Your task to perform on an android device: turn off location Image 0: 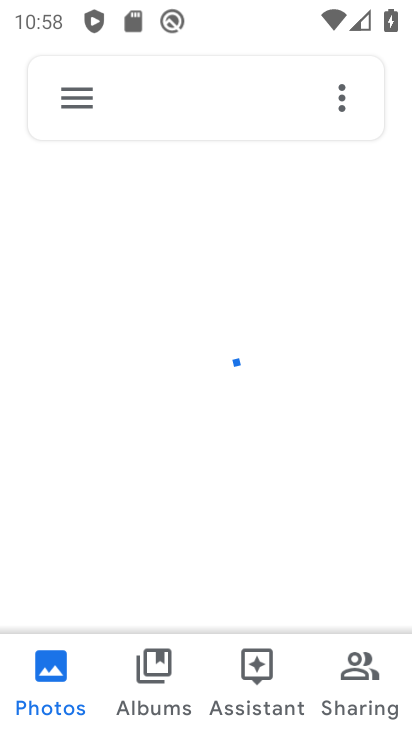
Step 0: press back button
Your task to perform on an android device: turn off location Image 1: 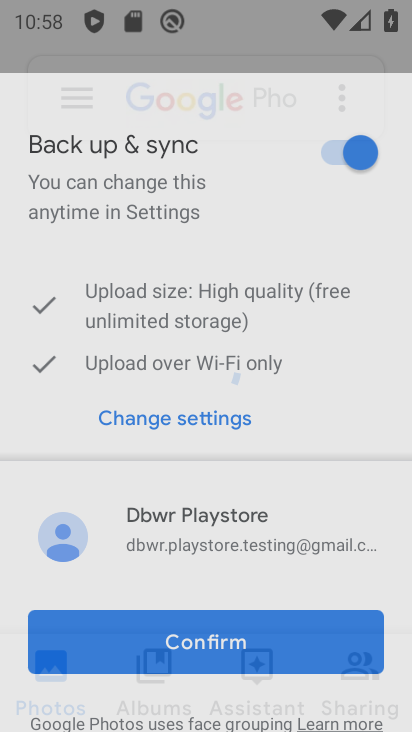
Step 1: press back button
Your task to perform on an android device: turn off location Image 2: 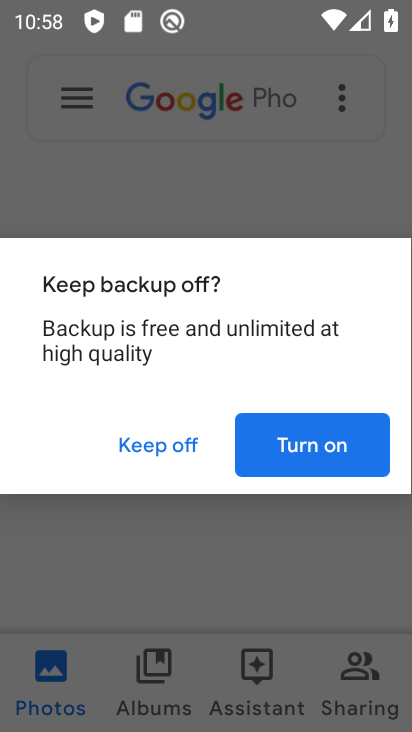
Step 2: press home button
Your task to perform on an android device: turn off location Image 3: 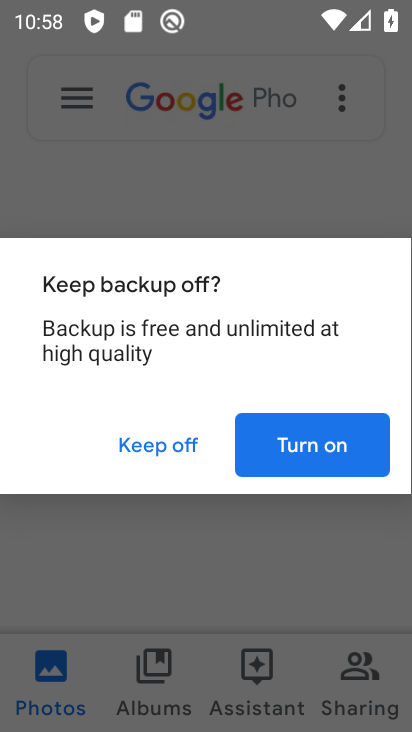
Step 3: click (165, 427)
Your task to perform on an android device: turn off location Image 4: 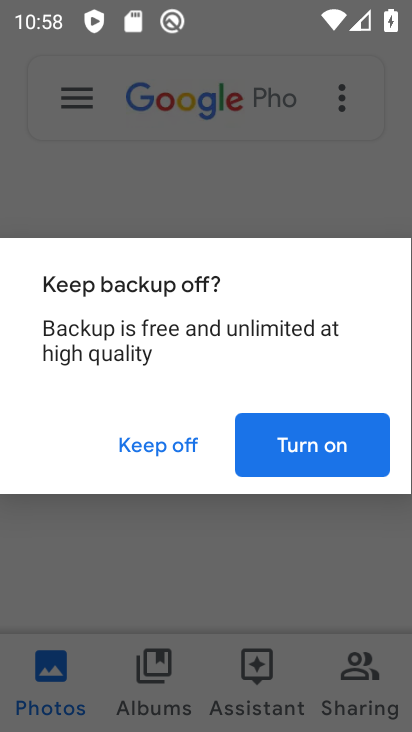
Step 4: click (163, 434)
Your task to perform on an android device: turn off location Image 5: 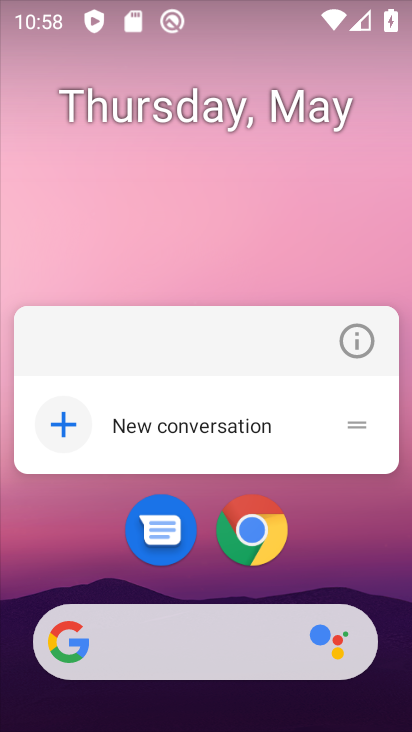
Step 5: press back button
Your task to perform on an android device: turn off location Image 6: 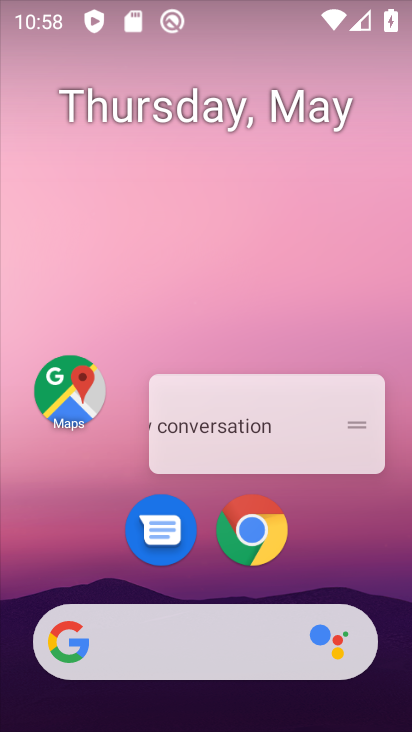
Step 6: press back button
Your task to perform on an android device: turn off location Image 7: 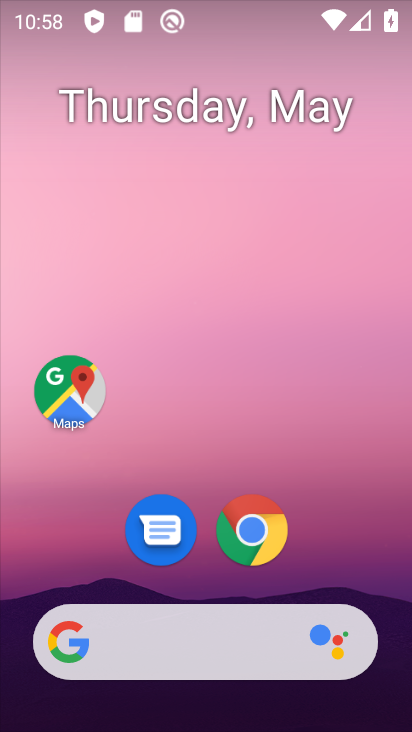
Step 7: drag from (220, 699) to (166, 148)
Your task to perform on an android device: turn off location Image 8: 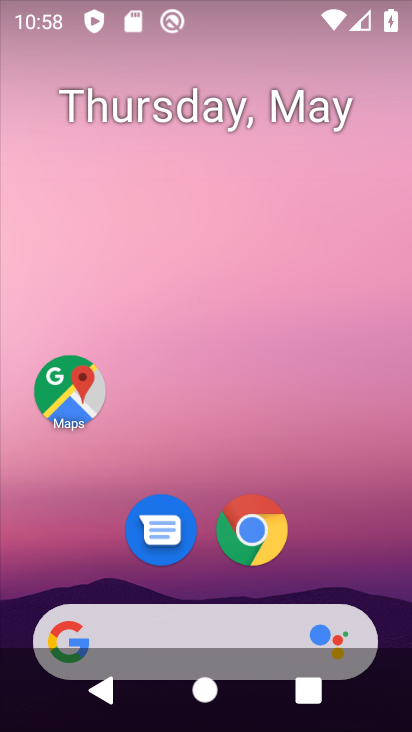
Step 8: drag from (344, 583) to (171, 6)
Your task to perform on an android device: turn off location Image 9: 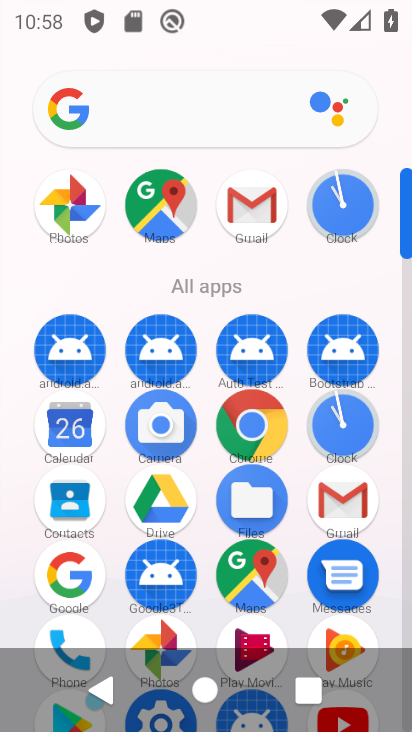
Step 9: click (183, 32)
Your task to perform on an android device: turn off location Image 10: 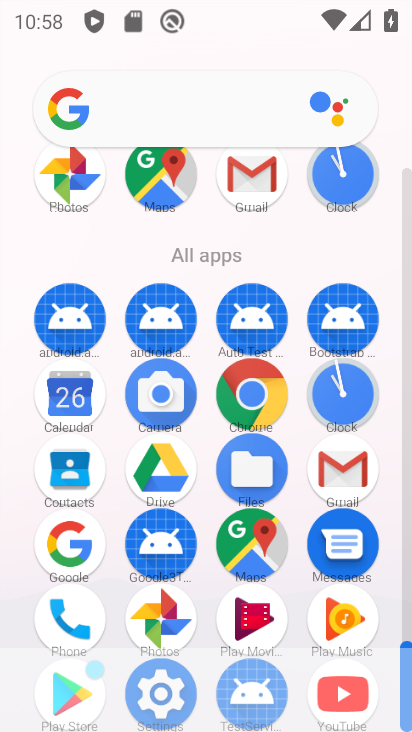
Step 10: drag from (214, 353) to (216, 224)
Your task to perform on an android device: turn off location Image 11: 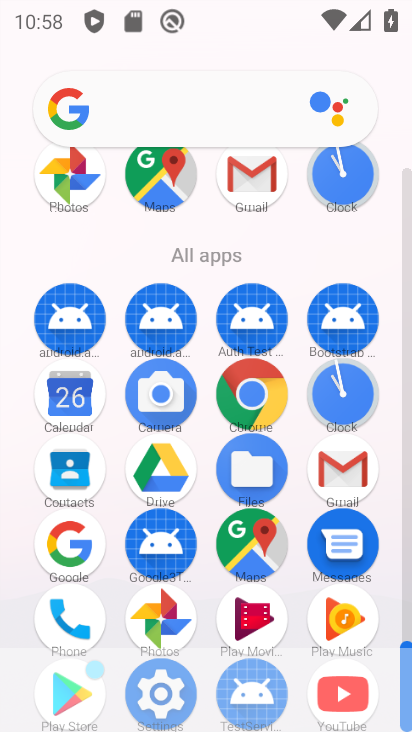
Step 11: drag from (194, 577) to (201, 286)
Your task to perform on an android device: turn off location Image 12: 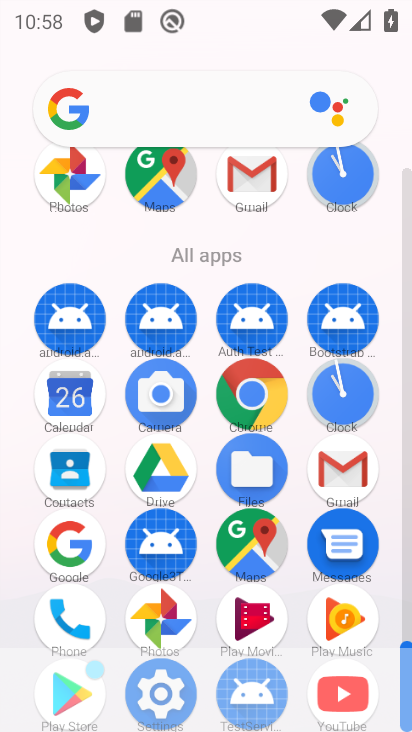
Step 12: drag from (188, 555) to (144, 250)
Your task to perform on an android device: turn off location Image 13: 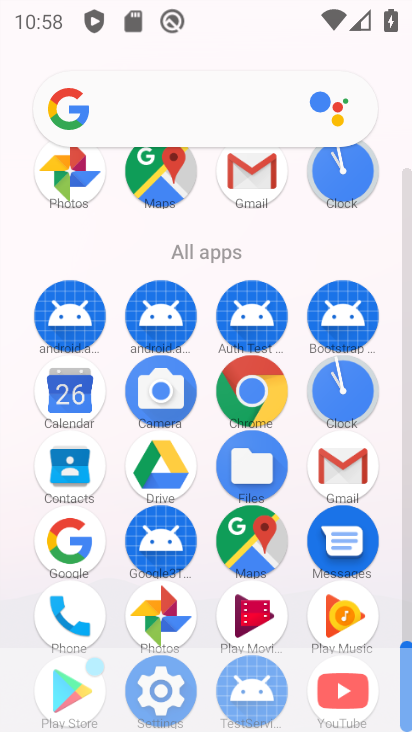
Step 13: drag from (182, 560) to (160, 254)
Your task to perform on an android device: turn off location Image 14: 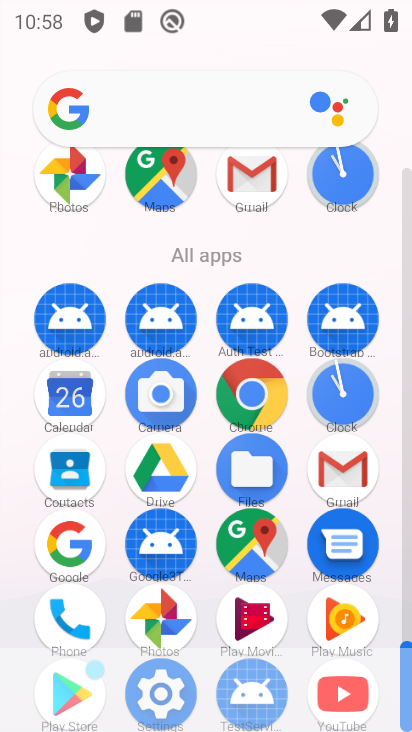
Step 14: drag from (226, 442) to (201, 209)
Your task to perform on an android device: turn off location Image 15: 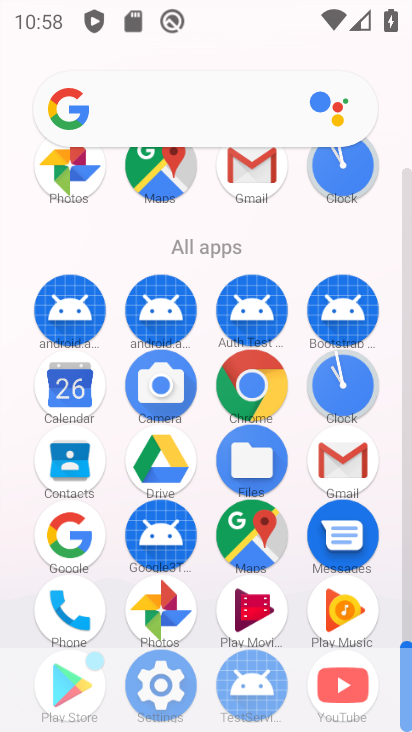
Step 15: drag from (212, 494) to (203, 79)
Your task to perform on an android device: turn off location Image 16: 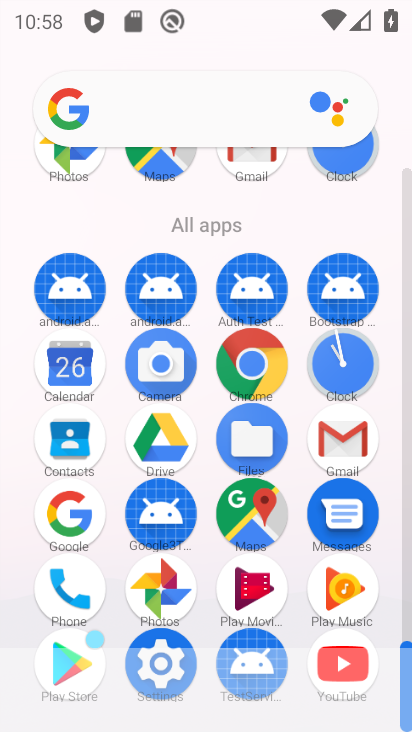
Step 16: drag from (305, 427) to (327, 270)
Your task to perform on an android device: turn off location Image 17: 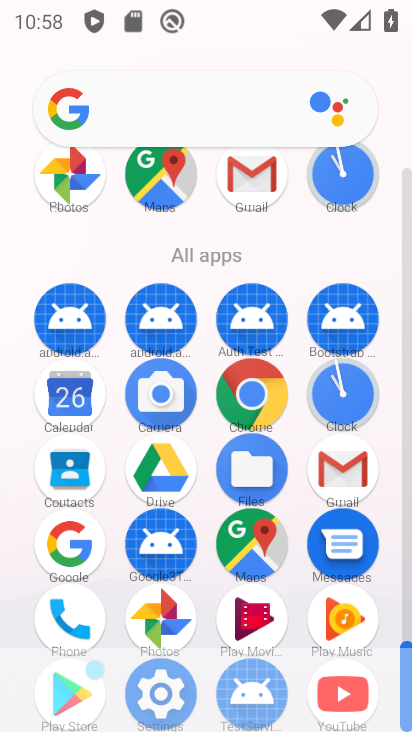
Step 17: drag from (334, 561) to (290, 283)
Your task to perform on an android device: turn off location Image 18: 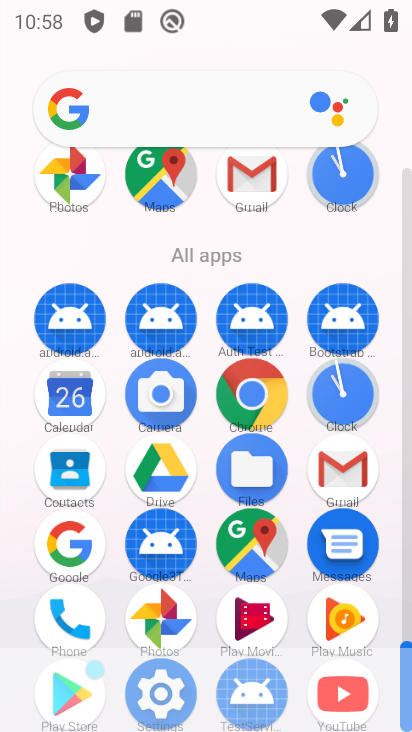
Step 18: drag from (196, 237) to (200, 502)
Your task to perform on an android device: turn off location Image 19: 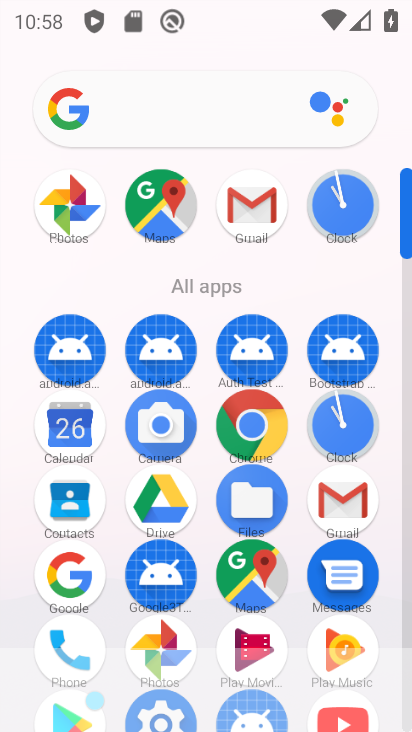
Step 19: drag from (199, 472) to (210, 16)
Your task to perform on an android device: turn off location Image 20: 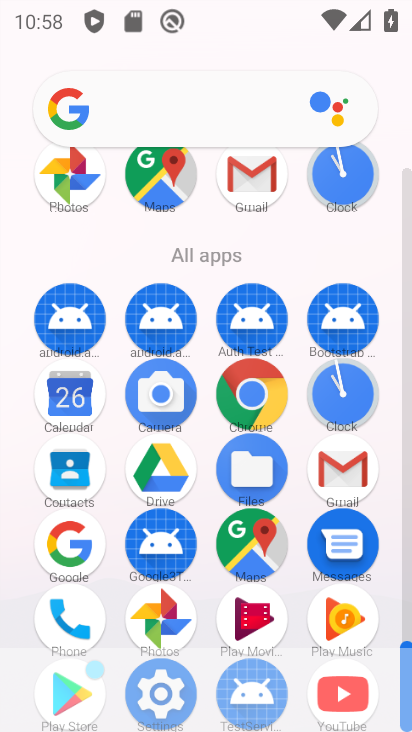
Step 20: drag from (196, 355) to (162, 466)
Your task to perform on an android device: turn off location Image 21: 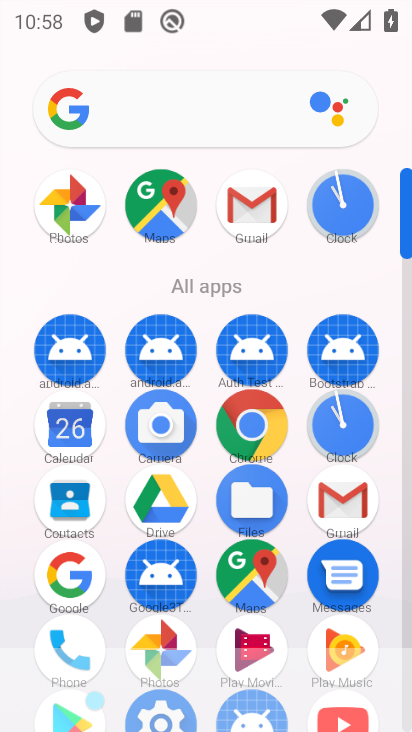
Step 21: drag from (188, 468) to (188, 354)
Your task to perform on an android device: turn off location Image 22: 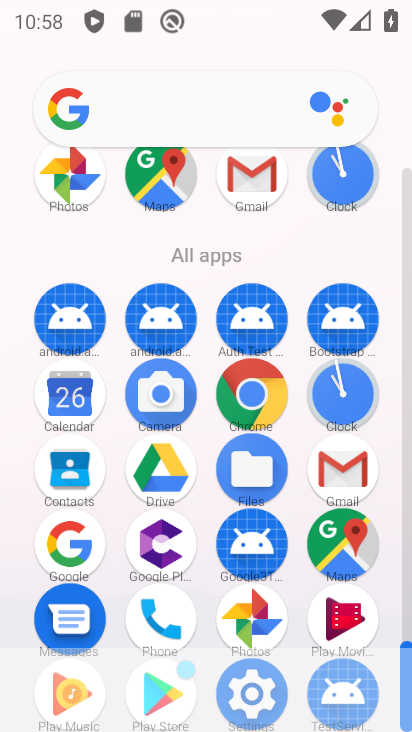
Step 22: click (289, 225)
Your task to perform on an android device: turn off location Image 23: 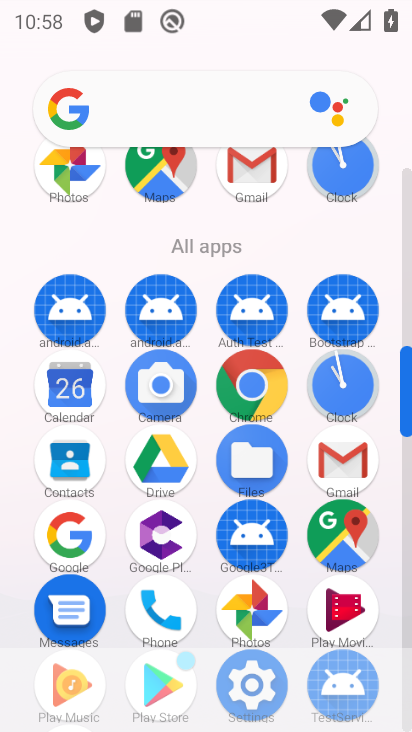
Step 23: drag from (250, 375) to (271, 44)
Your task to perform on an android device: turn off location Image 24: 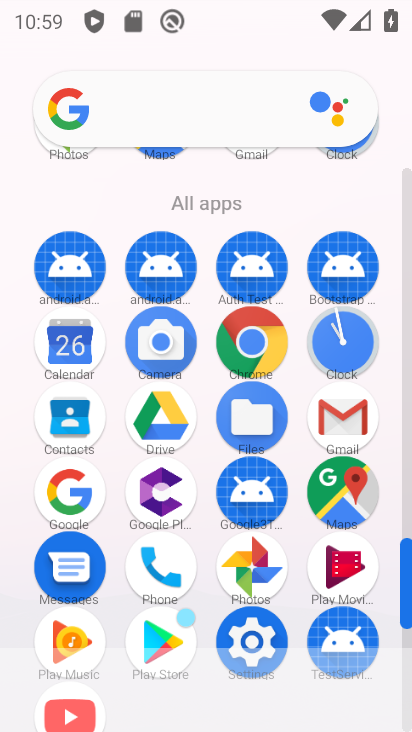
Step 24: drag from (288, 445) to (252, 125)
Your task to perform on an android device: turn off location Image 25: 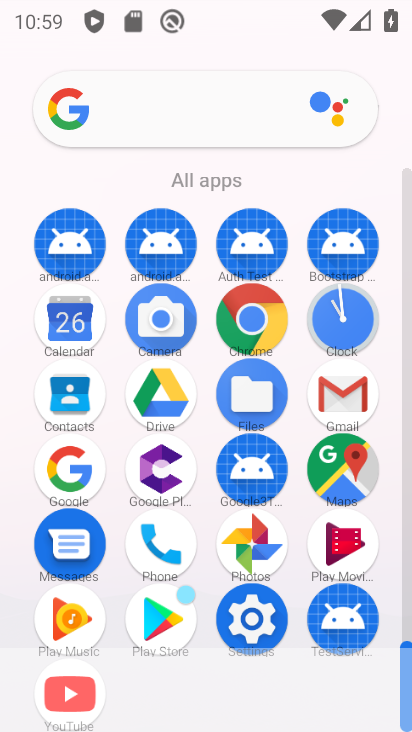
Step 25: drag from (295, 378) to (295, 181)
Your task to perform on an android device: turn off location Image 26: 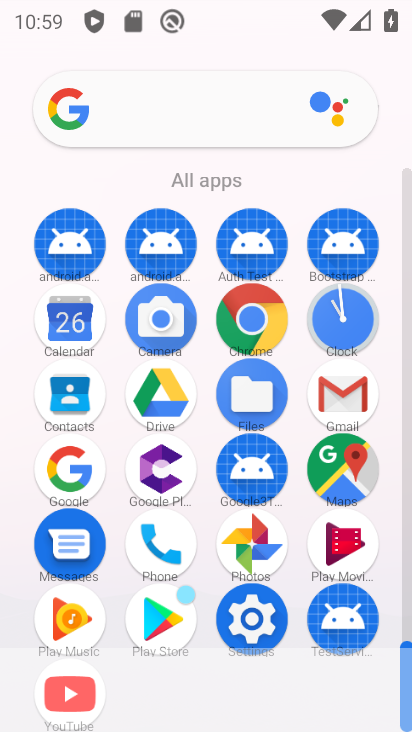
Step 26: click (225, 90)
Your task to perform on an android device: turn off location Image 27: 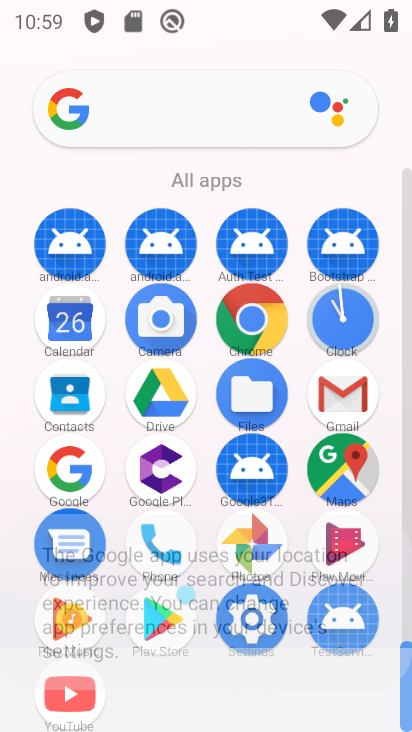
Step 27: click (237, 634)
Your task to perform on an android device: turn off location Image 28: 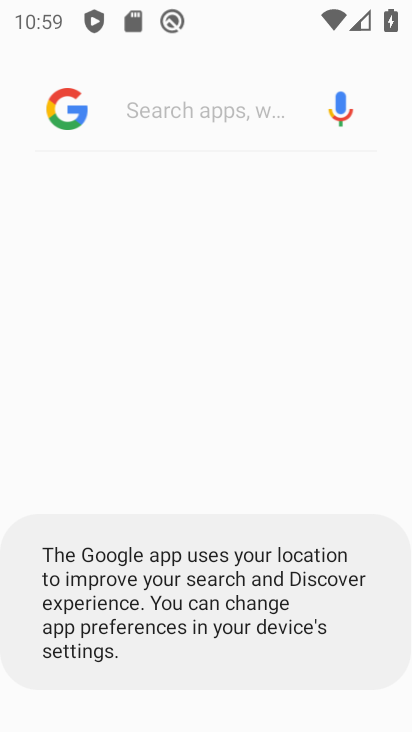
Step 28: click (251, 616)
Your task to perform on an android device: turn off location Image 29: 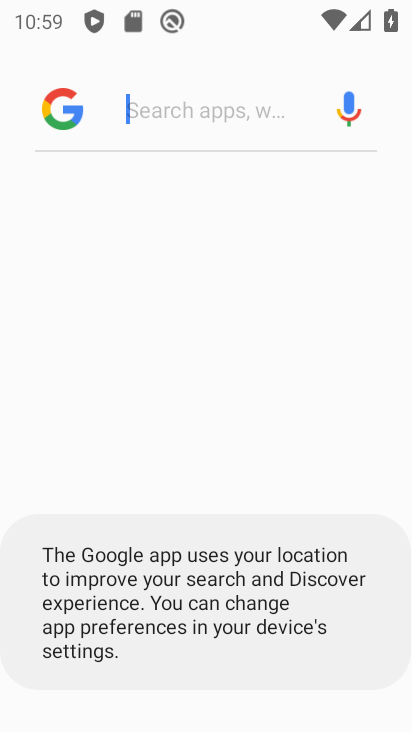
Step 29: click (252, 616)
Your task to perform on an android device: turn off location Image 30: 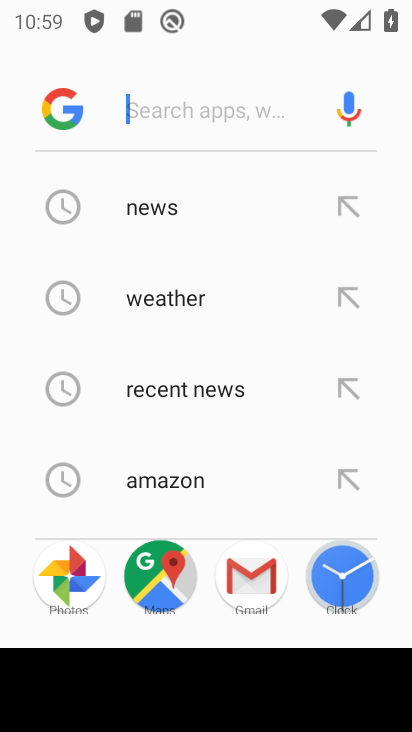
Step 30: click (256, 604)
Your task to perform on an android device: turn off location Image 31: 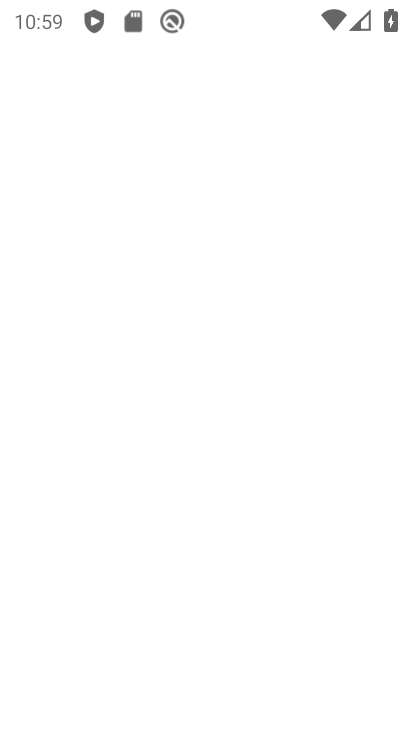
Step 31: press back button
Your task to perform on an android device: turn off location Image 32: 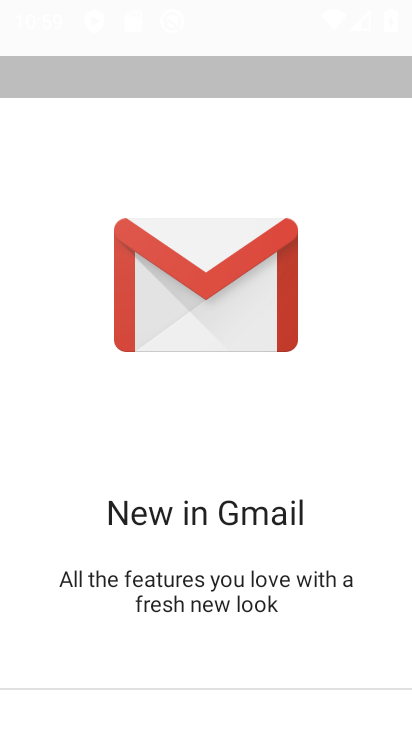
Step 32: press back button
Your task to perform on an android device: turn off location Image 33: 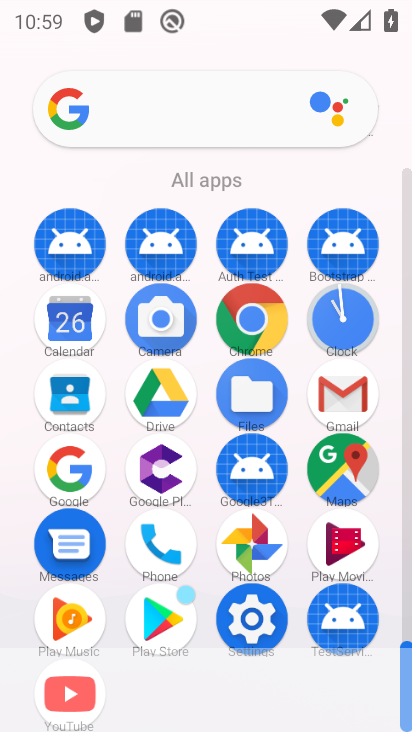
Step 33: click (256, 628)
Your task to perform on an android device: turn off location Image 34: 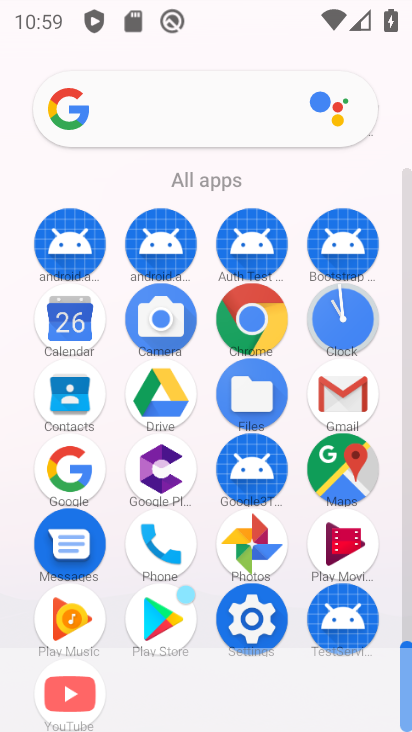
Step 34: click (256, 628)
Your task to perform on an android device: turn off location Image 35: 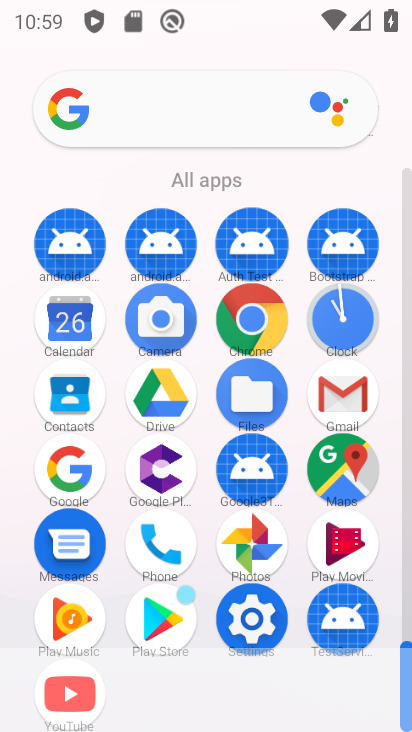
Step 35: click (257, 629)
Your task to perform on an android device: turn off location Image 36: 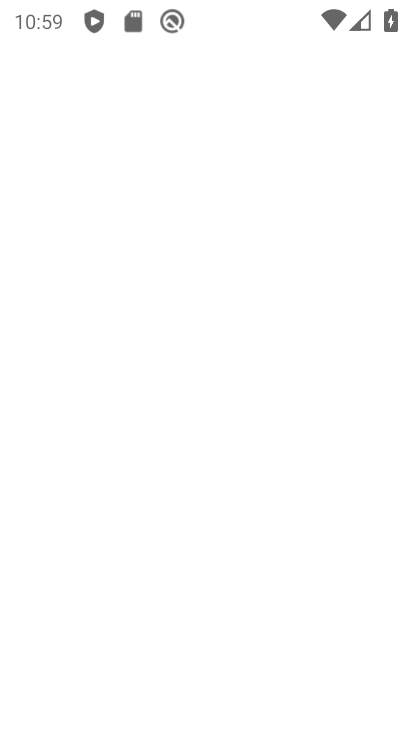
Step 36: click (248, 622)
Your task to perform on an android device: turn off location Image 37: 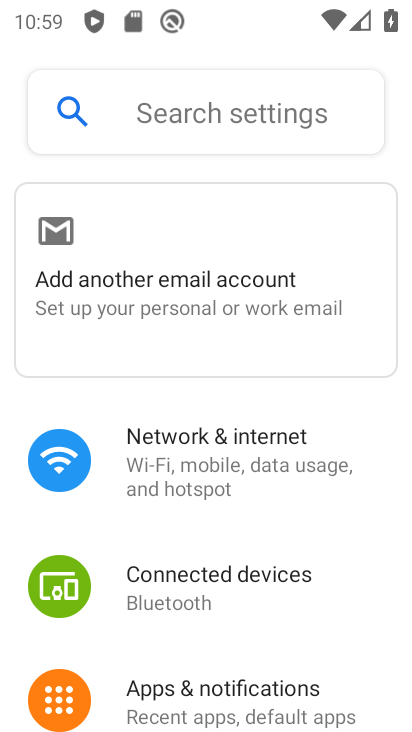
Step 37: drag from (221, 493) to (209, 290)
Your task to perform on an android device: turn off location Image 38: 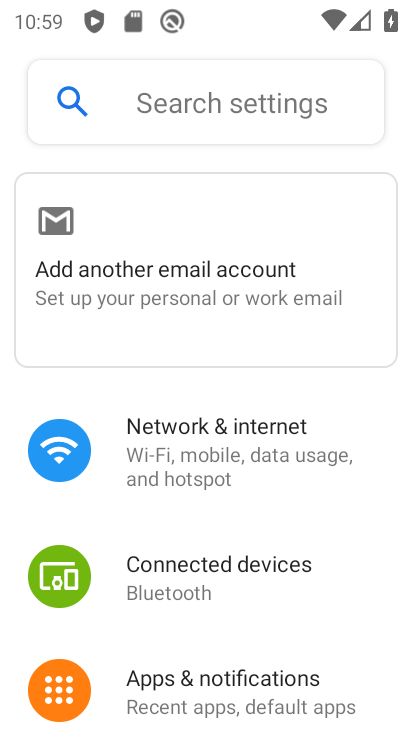
Step 38: drag from (170, 364) to (153, 192)
Your task to perform on an android device: turn off location Image 39: 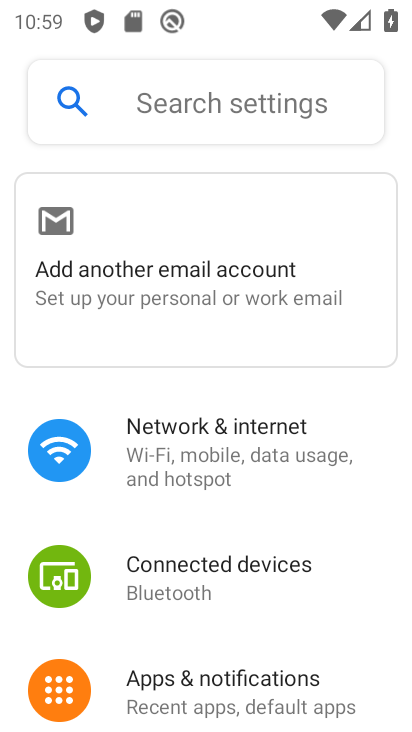
Step 39: drag from (112, 383) to (241, 2)
Your task to perform on an android device: turn off location Image 40: 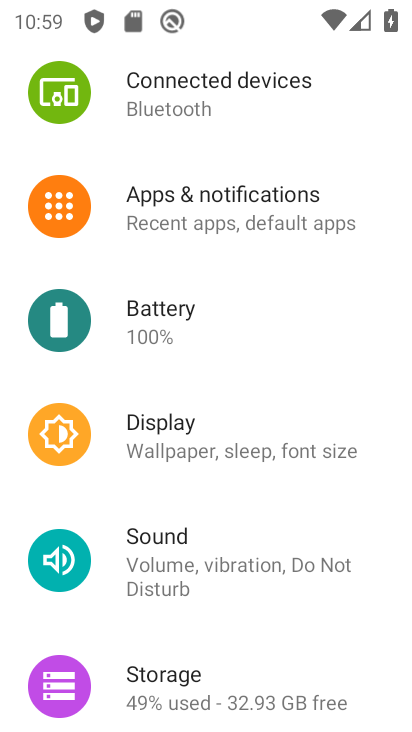
Step 40: drag from (223, 188) to (243, 37)
Your task to perform on an android device: turn off location Image 41: 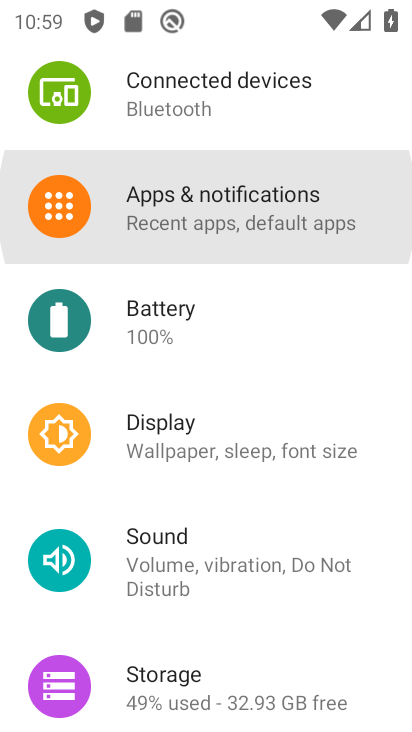
Step 41: drag from (218, 472) to (218, 39)
Your task to perform on an android device: turn off location Image 42: 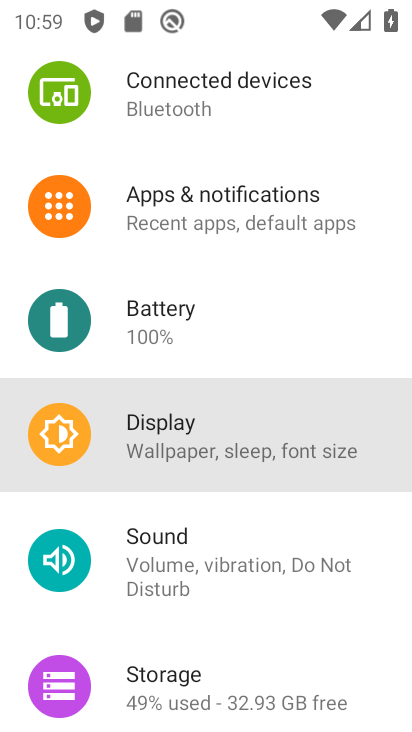
Step 42: drag from (207, 502) to (192, 78)
Your task to perform on an android device: turn off location Image 43: 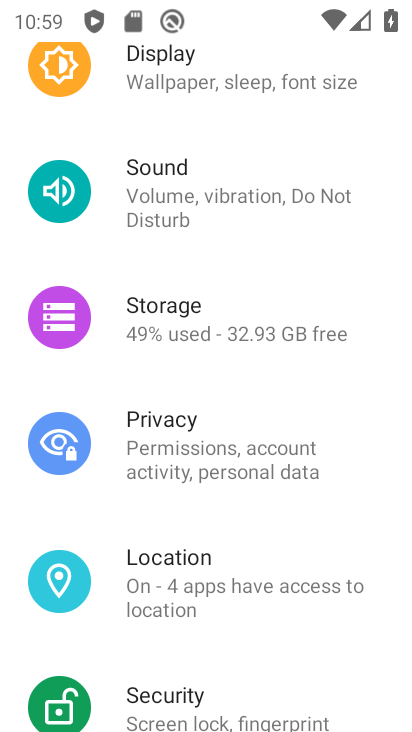
Step 43: drag from (155, 280) to (130, 7)
Your task to perform on an android device: turn off location Image 44: 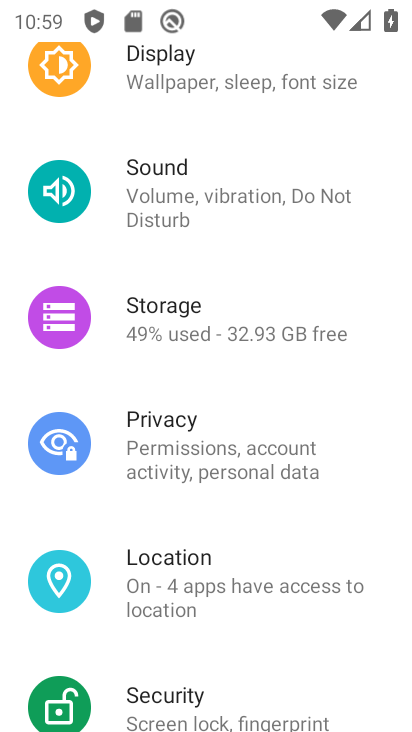
Step 44: drag from (134, 190) to (136, 19)
Your task to perform on an android device: turn off location Image 45: 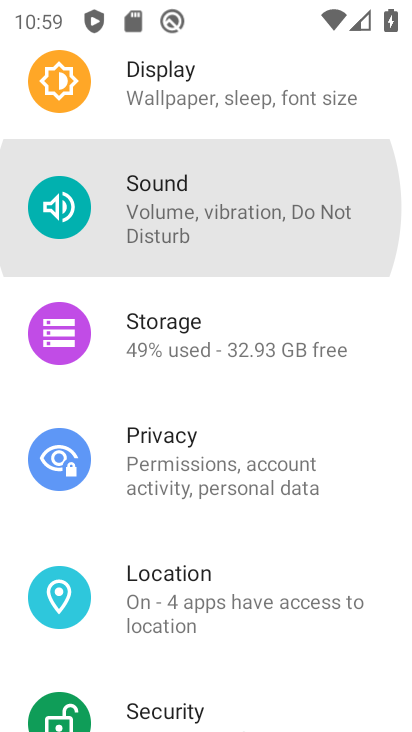
Step 45: drag from (178, 426) to (178, 95)
Your task to perform on an android device: turn off location Image 46: 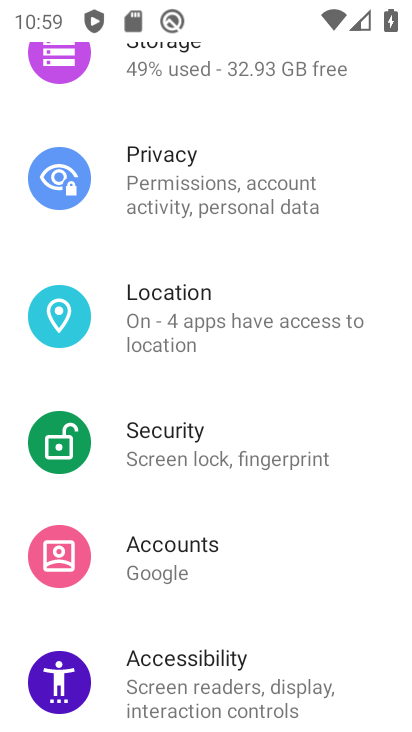
Step 46: drag from (178, 530) to (178, 181)
Your task to perform on an android device: turn off location Image 47: 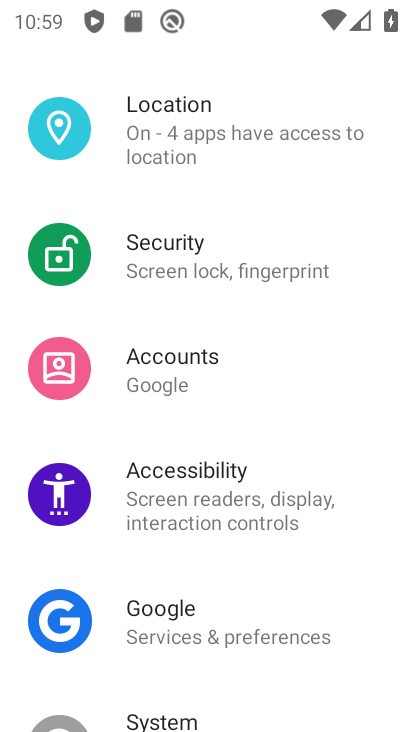
Step 47: drag from (169, 562) to (160, 133)
Your task to perform on an android device: turn off location Image 48: 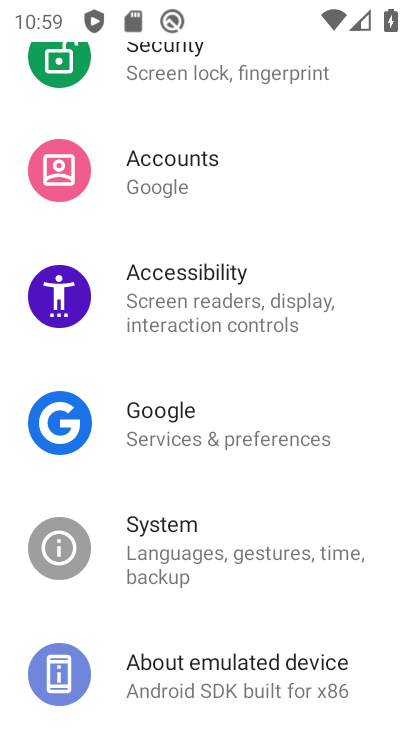
Step 48: drag from (194, 281) to (215, 517)
Your task to perform on an android device: turn off location Image 49: 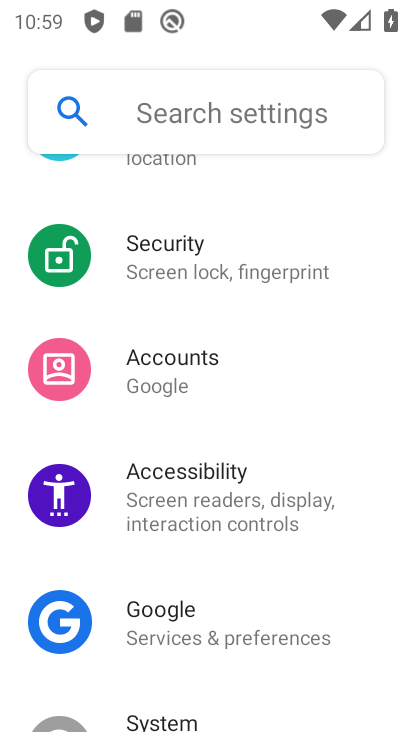
Step 49: drag from (166, 235) to (207, 561)
Your task to perform on an android device: turn off location Image 50: 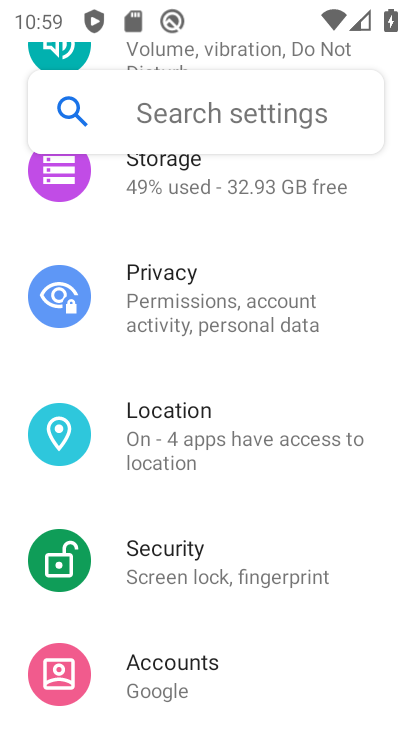
Step 50: drag from (210, 328) to (226, 626)
Your task to perform on an android device: turn off location Image 51: 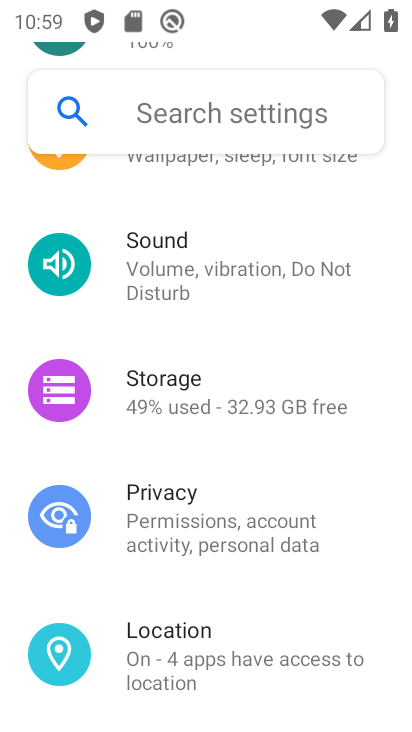
Step 51: drag from (167, 272) to (192, 565)
Your task to perform on an android device: turn off location Image 52: 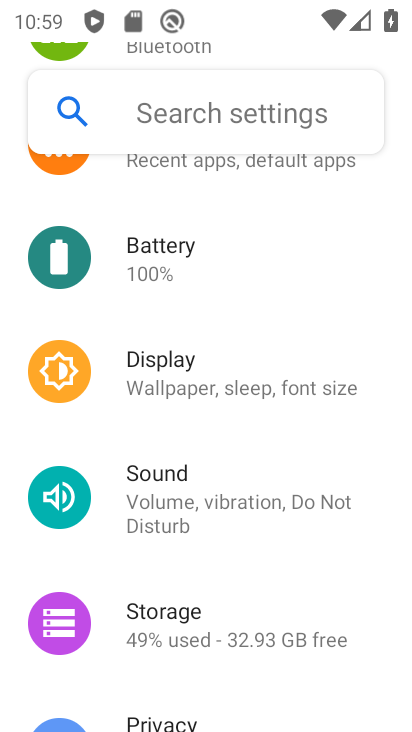
Step 52: drag from (189, 362) to (188, 489)
Your task to perform on an android device: turn off location Image 53: 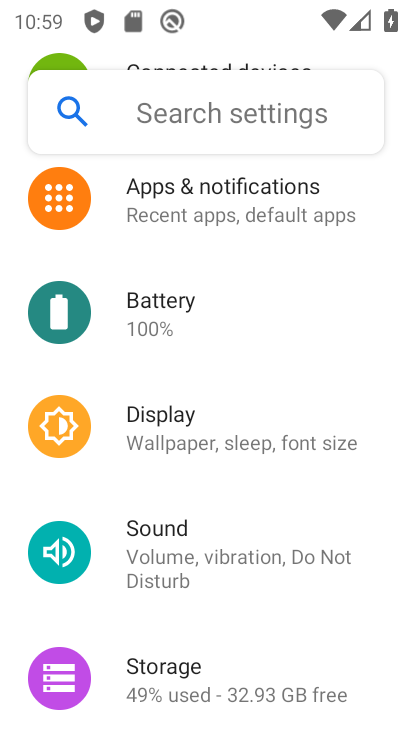
Step 53: drag from (139, 160) to (153, 229)
Your task to perform on an android device: turn off location Image 54: 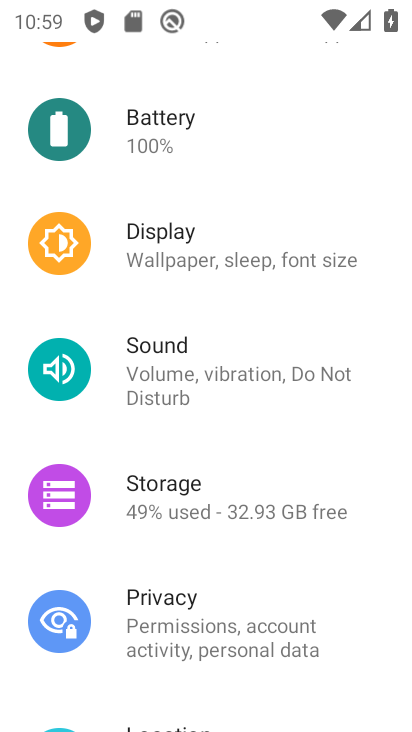
Step 54: drag from (221, 325) to (231, 259)
Your task to perform on an android device: turn off location Image 55: 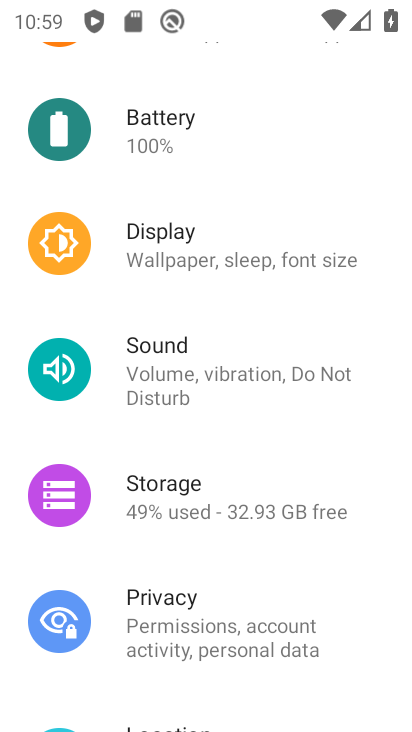
Step 55: drag from (252, 380) to (252, 35)
Your task to perform on an android device: turn off location Image 56: 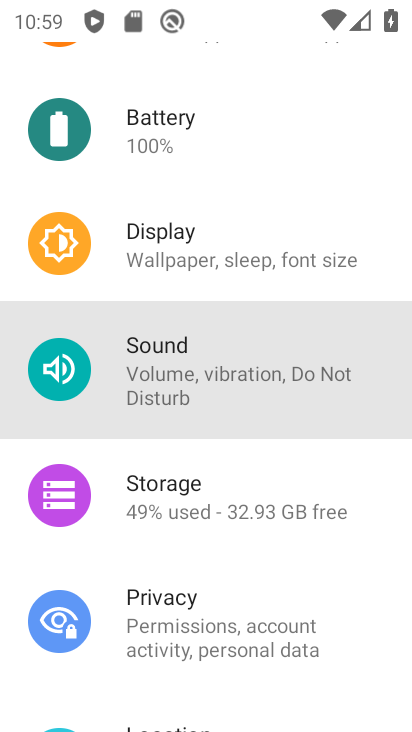
Step 56: drag from (167, 474) to (167, 37)
Your task to perform on an android device: turn off location Image 57: 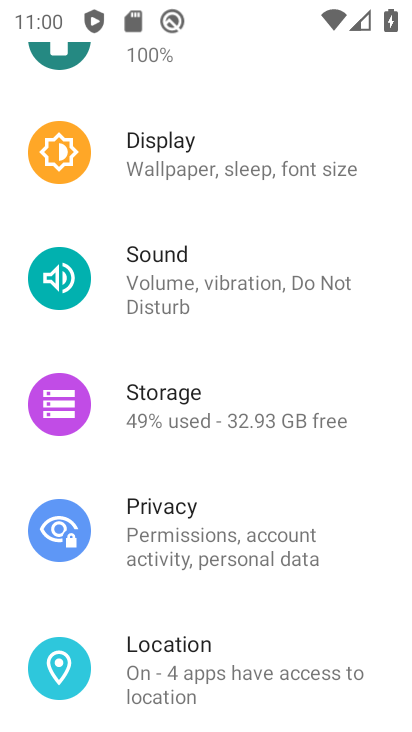
Step 57: drag from (178, 447) to (171, 119)
Your task to perform on an android device: turn off location Image 58: 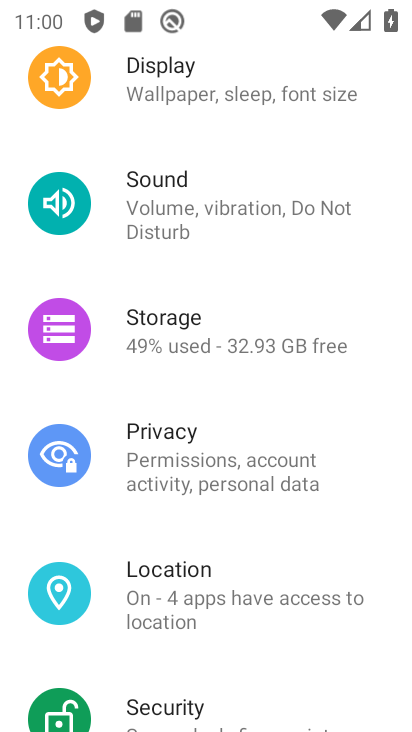
Step 58: drag from (196, 236) to (196, 54)
Your task to perform on an android device: turn off location Image 59: 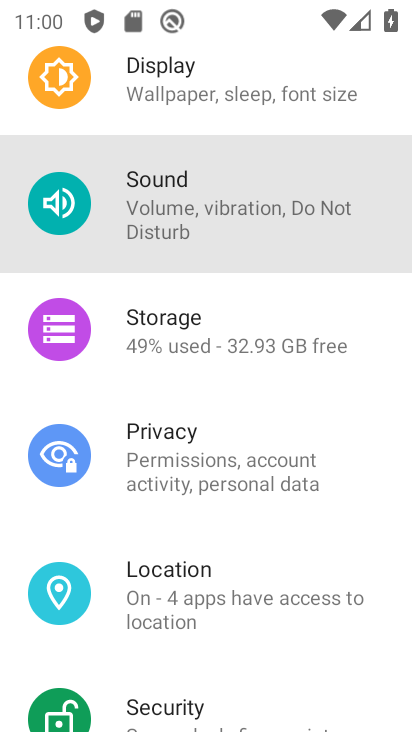
Step 59: drag from (189, 496) to (153, 169)
Your task to perform on an android device: turn off location Image 60: 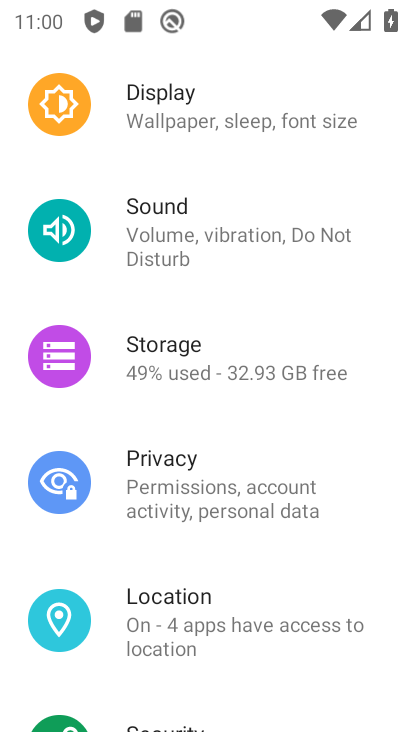
Step 60: drag from (151, 452) to (195, 189)
Your task to perform on an android device: turn off location Image 61: 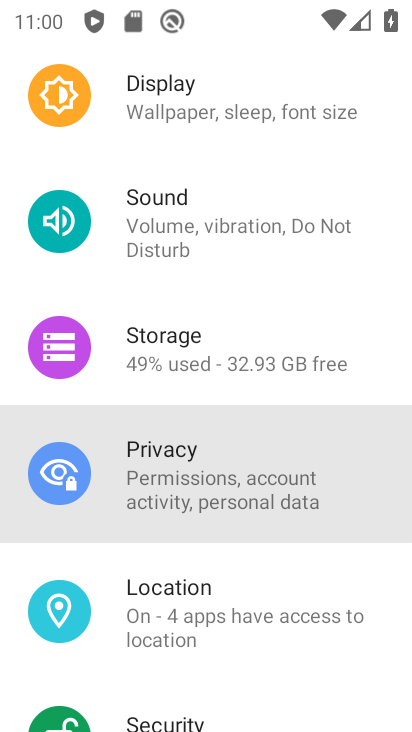
Step 61: drag from (160, 163) to (233, 280)
Your task to perform on an android device: turn off location Image 62: 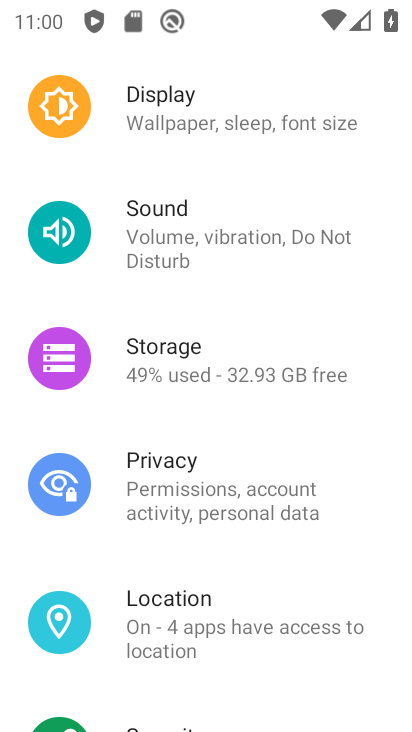
Step 62: drag from (237, 571) to (273, 293)
Your task to perform on an android device: turn off location Image 63: 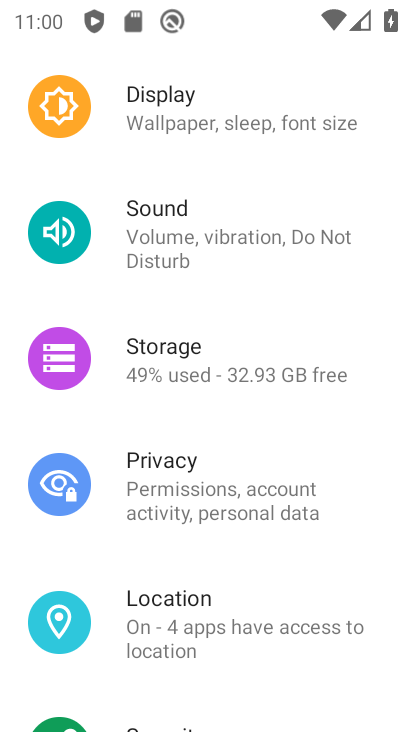
Step 63: drag from (257, 325) to (260, 76)
Your task to perform on an android device: turn off location Image 64: 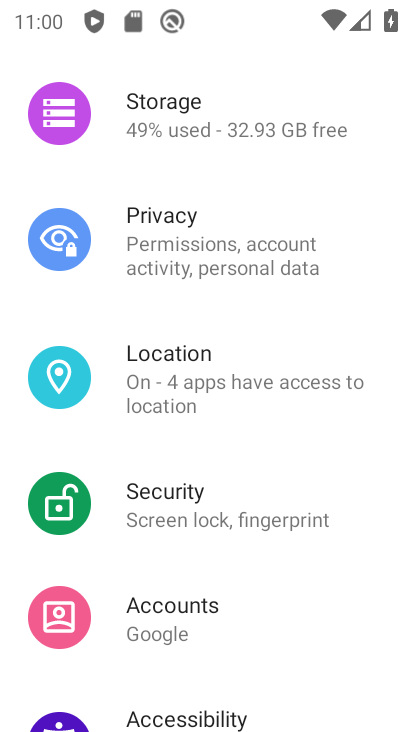
Step 64: click (238, 303)
Your task to perform on an android device: turn off location Image 65: 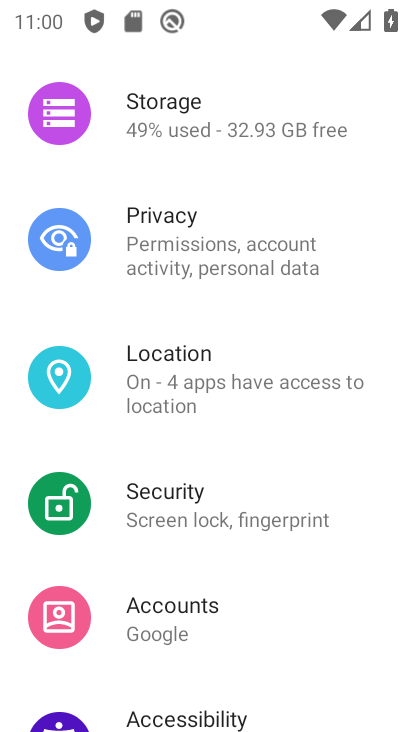
Step 65: click (188, 579)
Your task to perform on an android device: turn off location Image 66: 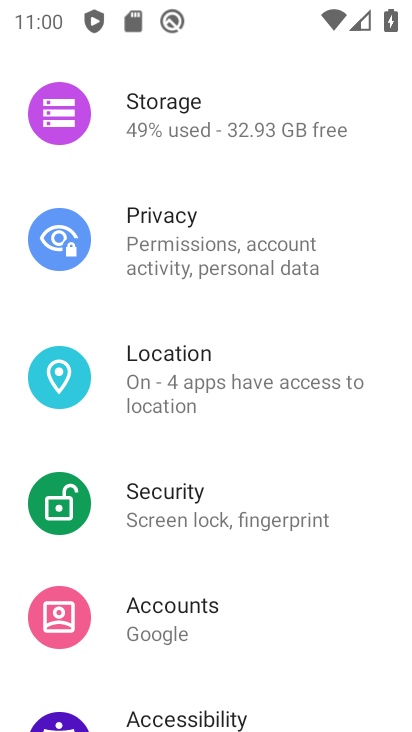
Step 66: click (211, 616)
Your task to perform on an android device: turn off location Image 67: 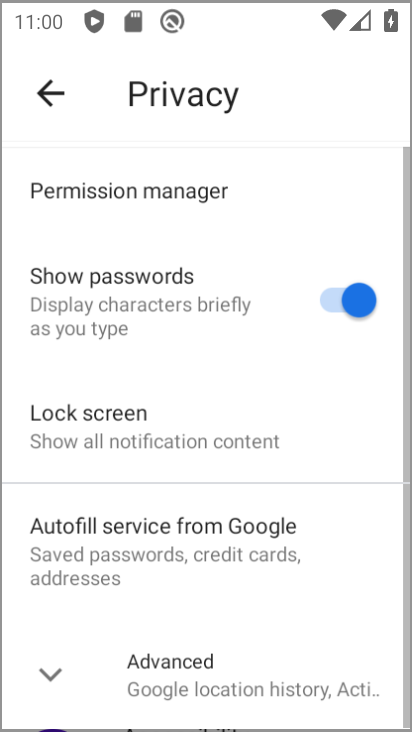
Step 67: task complete